Your task to perform on an android device: Open Maps and search for coffee Image 0: 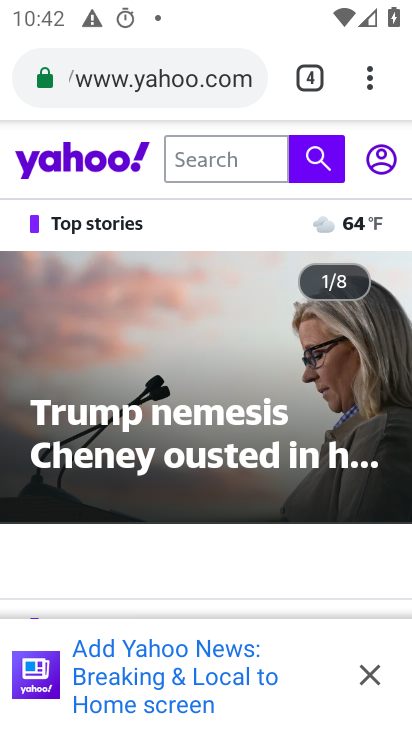
Step 0: press home button
Your task to perform on an android device: Open Maps and search for coffee Image 1: 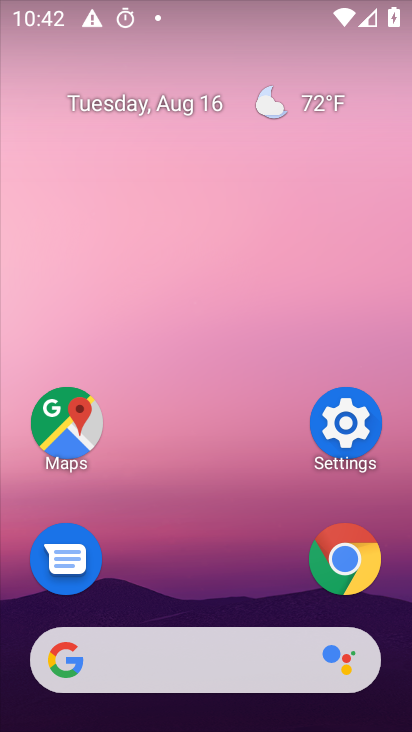
Step 1: click (63, 427)
Your task to perform on an android device: Open Maps and search for coffee Image 2: 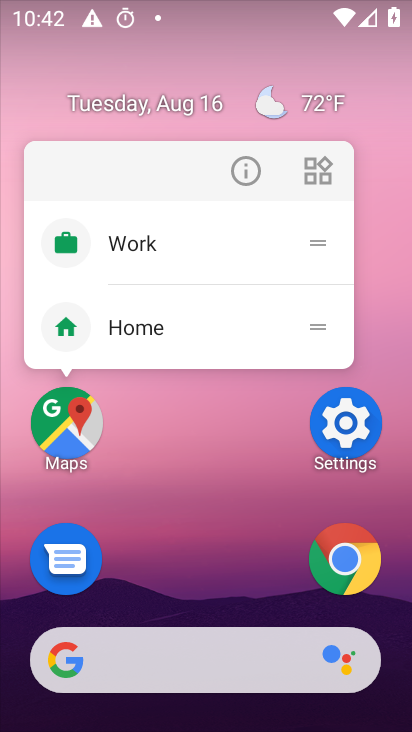
Step 2: click (63, 432)
Your task to perform on an android device: Open Maps and search for coffee Image 3: 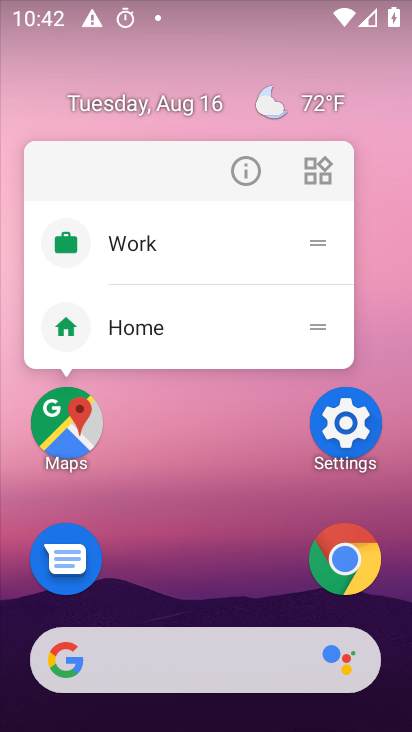
Step 3: click (73, 425)
Your task to perform on an android device: Open Maps and search for coffee Image 4: 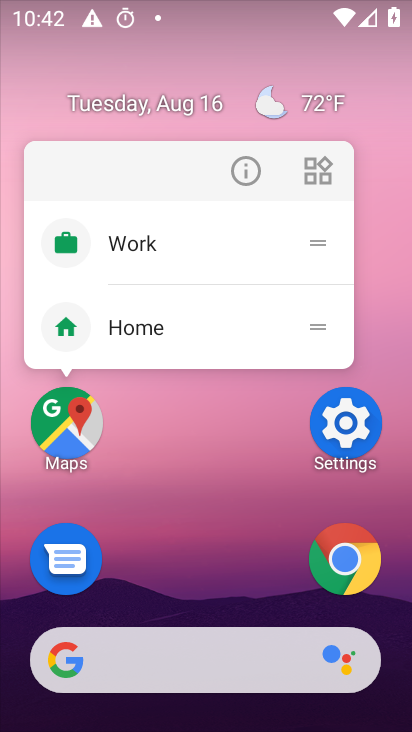
Step 4: click (68, 425)
Your task to perform on an android device: Open Maps and search for coffee Image 5: 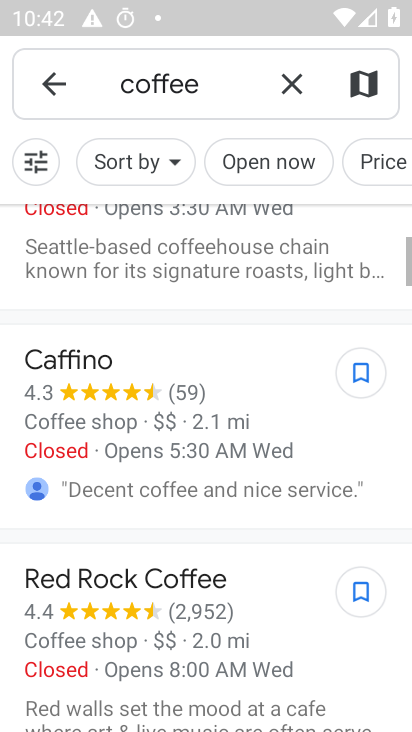
Step 5: drag from (223, 293) to (215, 635)
Your task to perform on an android device: Open Maps and search for coffee Image 6: 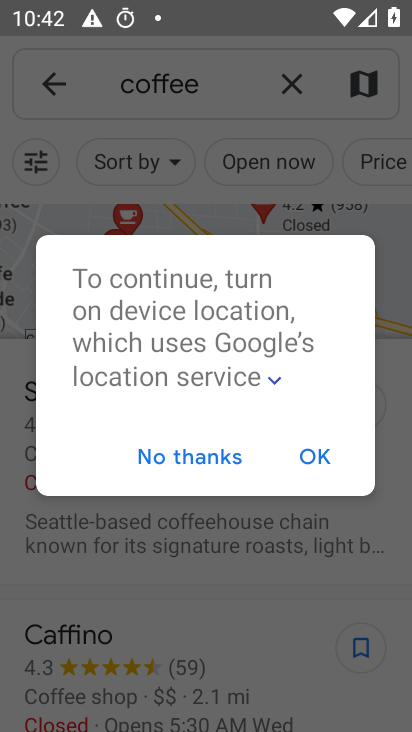
Step 6: click (325, 451)
Your task to perform on an android device: Open Maps and search for coffee Image 7: 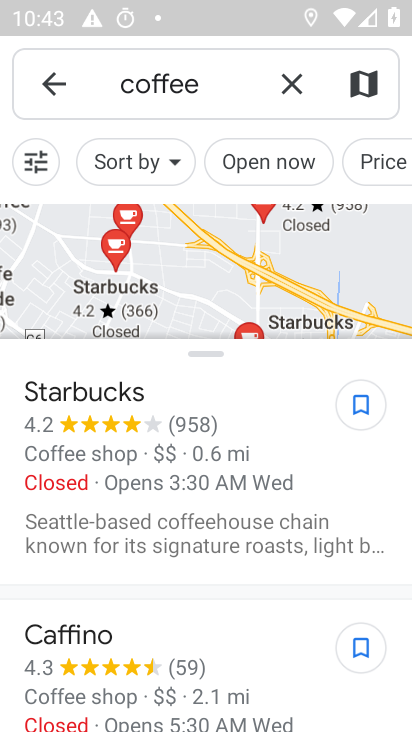
Step 7: task complete